Your task to perform on an android device: toggle priority inbox in the gmail app Image 0: 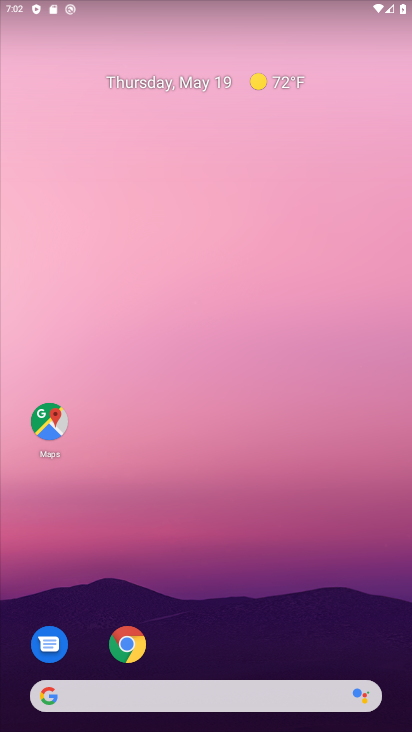
Step 0: drag from (347, 632) to (372, 266)
Your task to perform on an android device: toggle priority inbox in the gmail app Image 1: 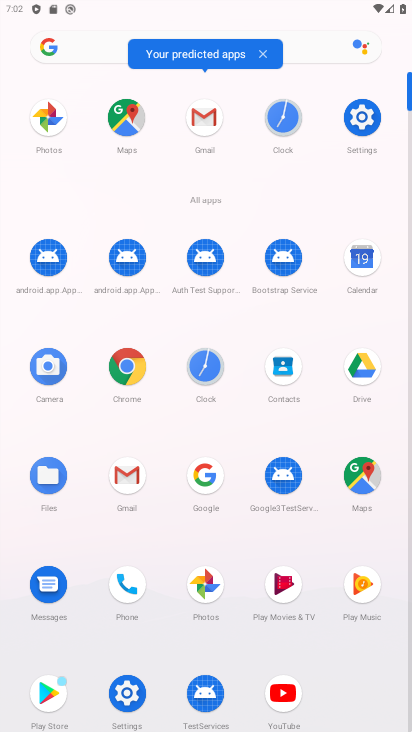
Step 1: click (130, 469)
Your task to perform on an android device: toggle priority inbox in the gmail app Image 2: 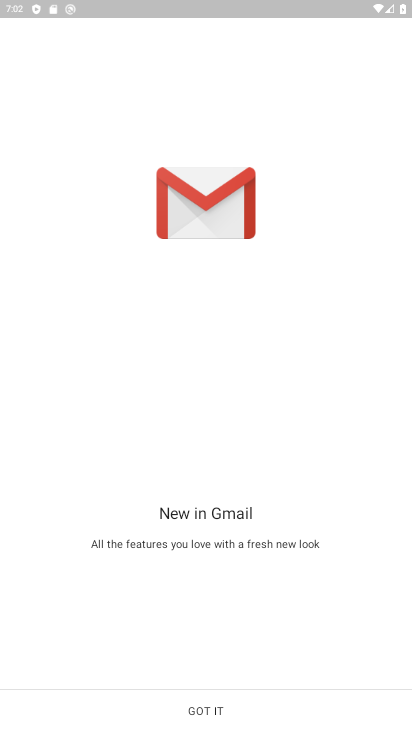
Step 2: click (238, 706)
Your task to perform on an android device: toggle priority inbox in the gmail app Image 3: 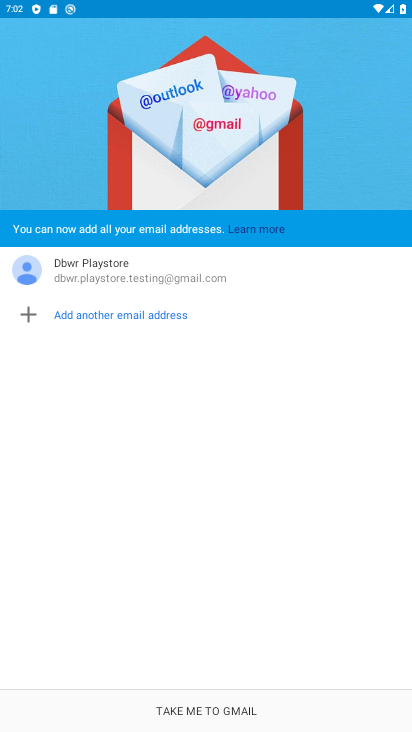
Step 3: click (238, 706)
Your task to perform on an android device: toggle priority inbox in the gmail app Image 4: 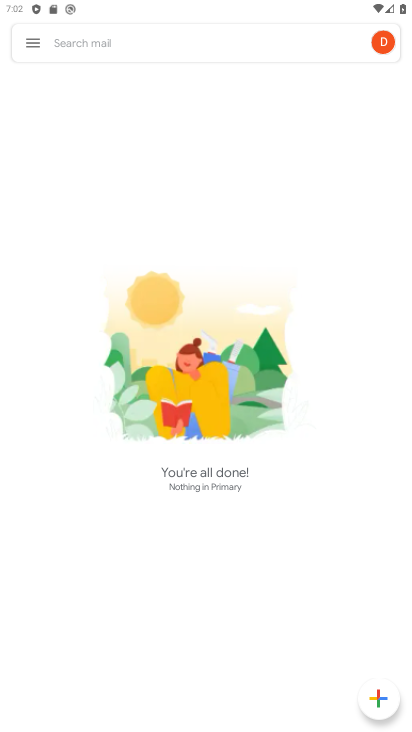
Step 4: click (34, 52)
Your task to perform on an android device: toggle priority inbox in the gmail app Image 5: 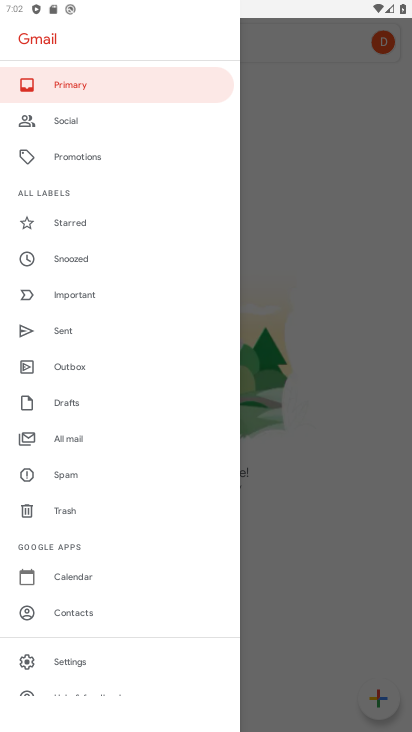
Step 5: drag from (101, 618) to (129, 418)
Your task to perform on an android device: toggle priority inbox in the gmail app Image 6: 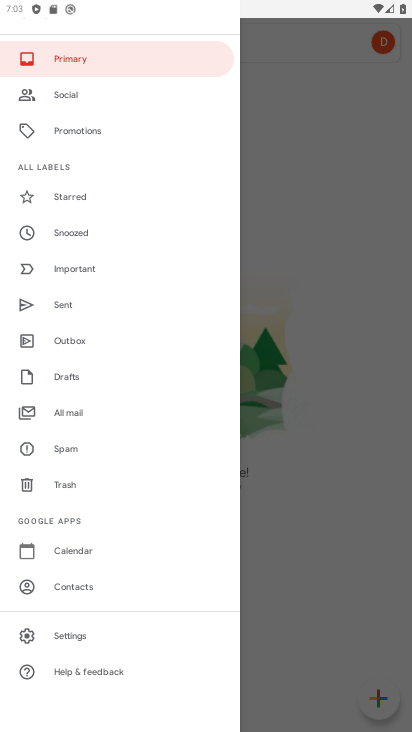
Step 6: click (80, 634)
Your task to perform on an android device: toggle priority inbox in the gmail app Image 7: 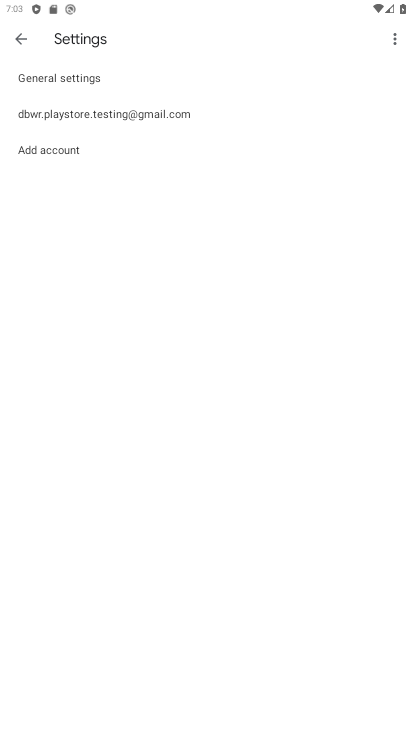
Step 7: click (124, 112)
Your task to perform on an android device: toggle priority inbox in the gmail app Image 8: 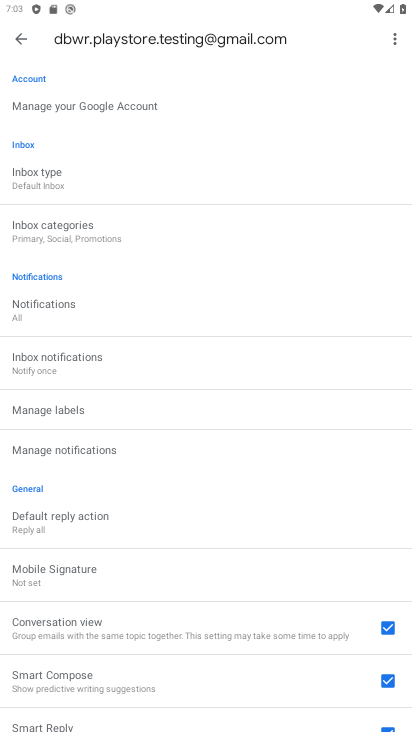
Step 8: click (119, 173)
Your task to perform on an android device: toggle priority inbox in the gmail app Image 9: 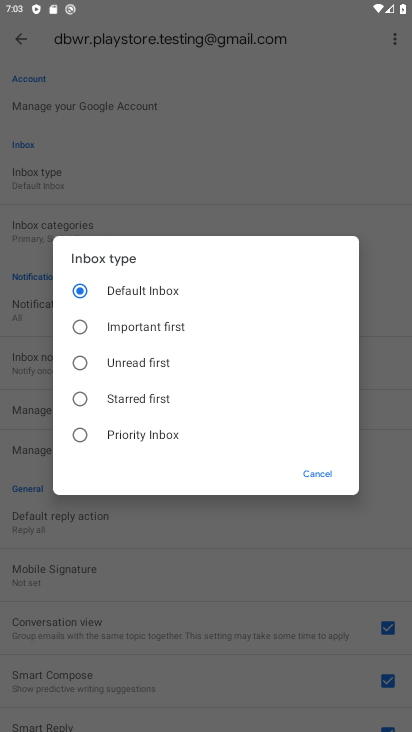
Step 9: click (133, 440)
Your task to perform on an android device: toggle priority inbox in the gmail app Image 10: 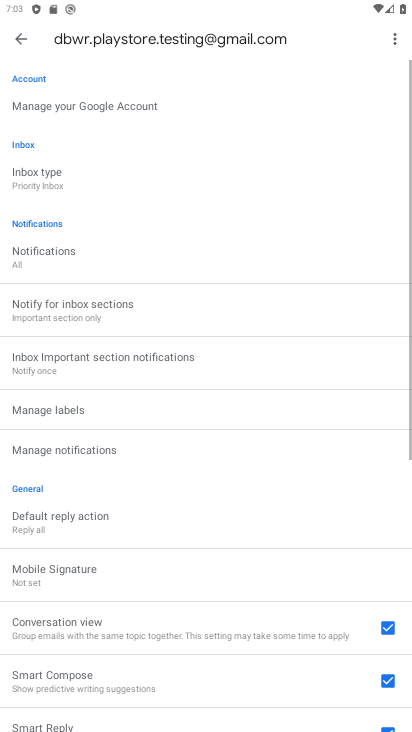
Step 10: task complete